Your task to perform on an android device: What is the news today? Image 0: 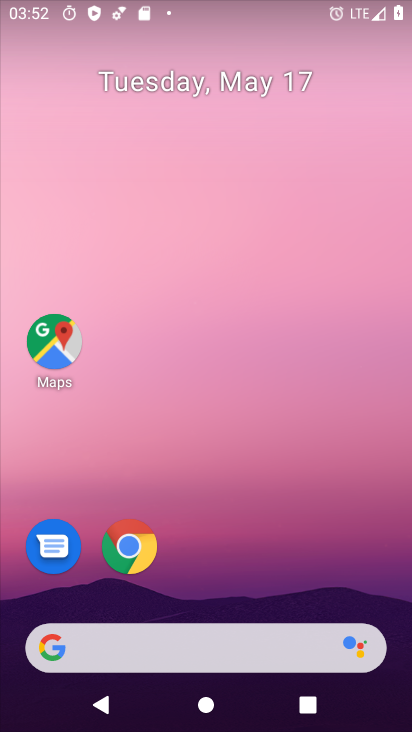
Step 0: click (119, 554)
Your task to perform on an android device: What is the news today? Image 1: 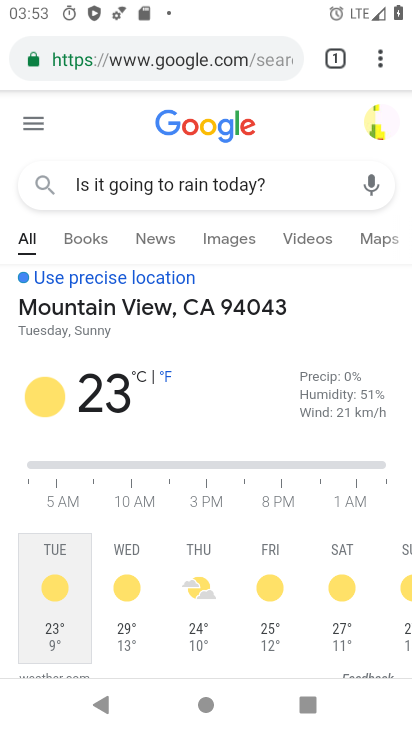
Step 1: click (181, 63)
Your task to perform on an android device: What is the news today? Image 2: 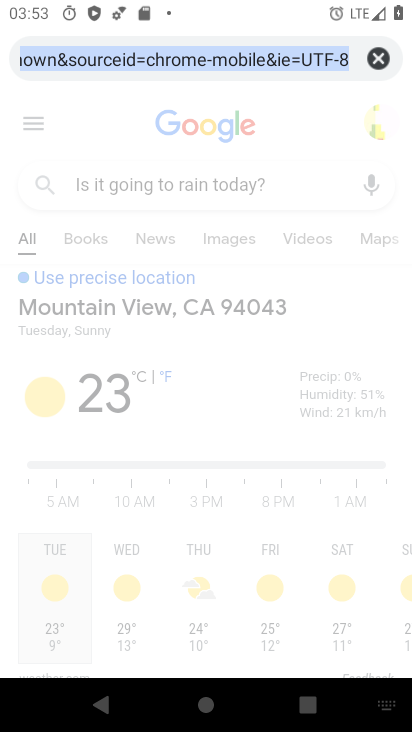
Step 2: click (379, 63)
Your task to perform on an android device: What is the news today? Image 3: 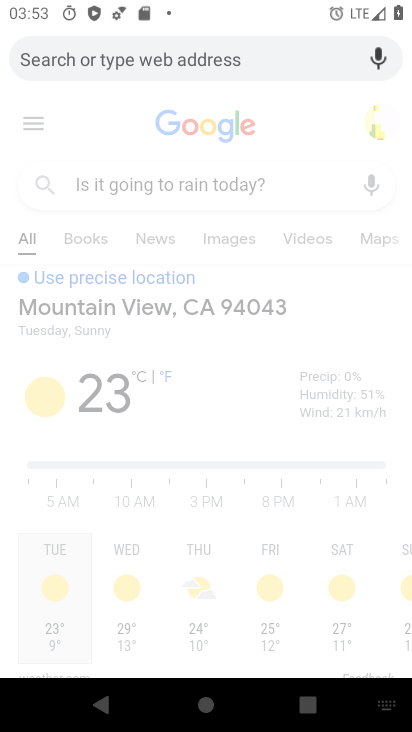
Step 3: type "What is the news today?"
Your task to perform on an android device: What is the news today? Image 4: 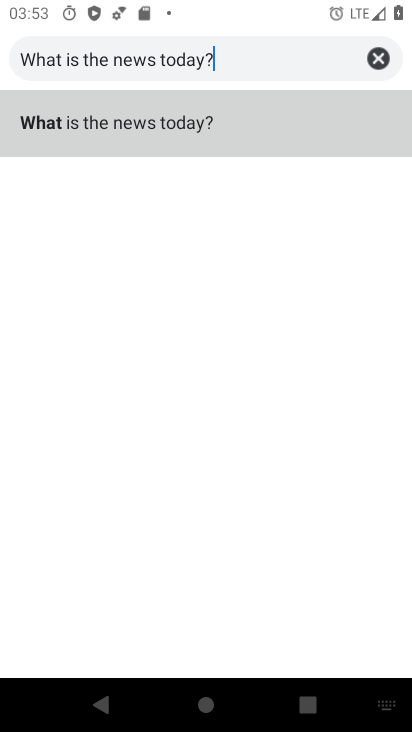
Step 4: click (324, 114)
Your task to perform on an android device: What is the news today? Image 5: 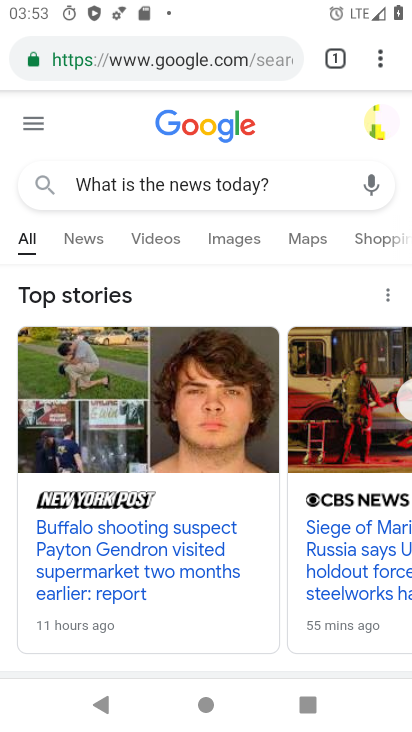
Step 5: task complete